Your task to perform on an android device: Open calendar and show me the third week of next month Image 0: 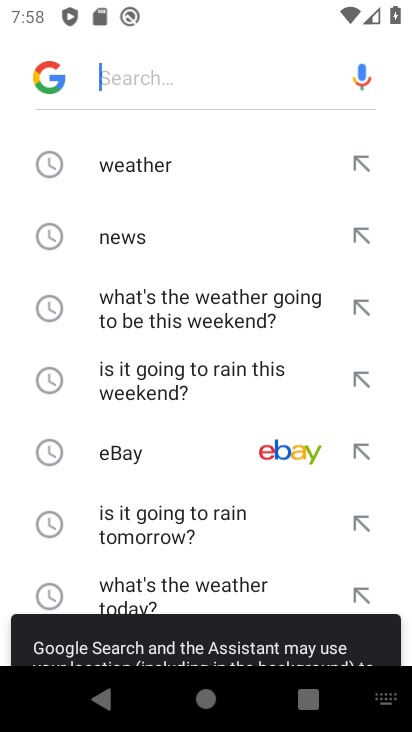
Step 0: press home button
Your task to perform on an android device: Open calendar and show me the third week of next month Image 1: 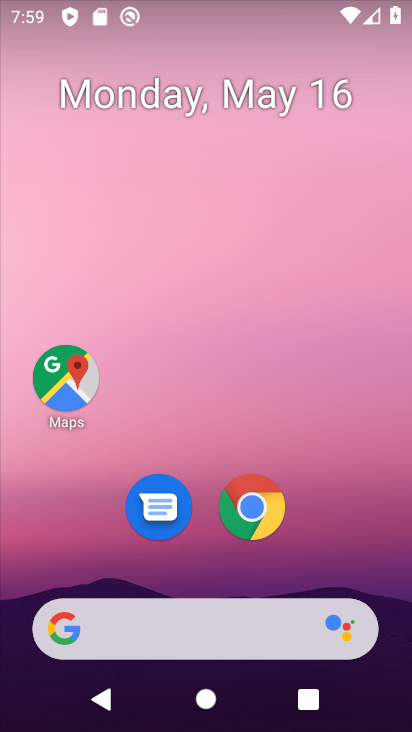
Step 1: drag from (344, 528) to (336, 123)
Your task to perform on an android device: Open calendar and show me the third week of next month Image 2: 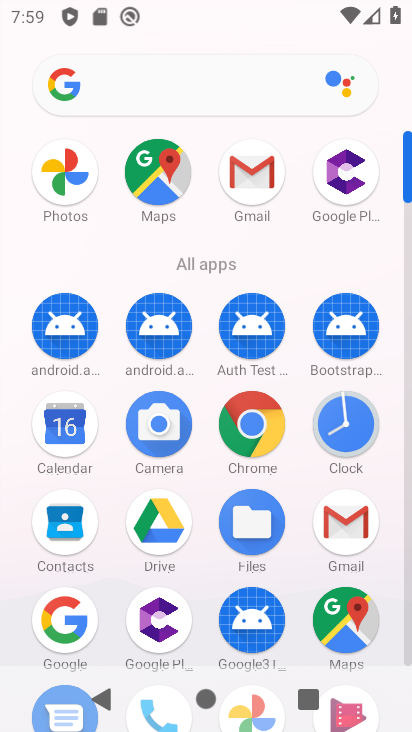
Step 2: click (59, 436)
Your task to perform on an android device: Open calendar and show me the third week of next month Image 3: 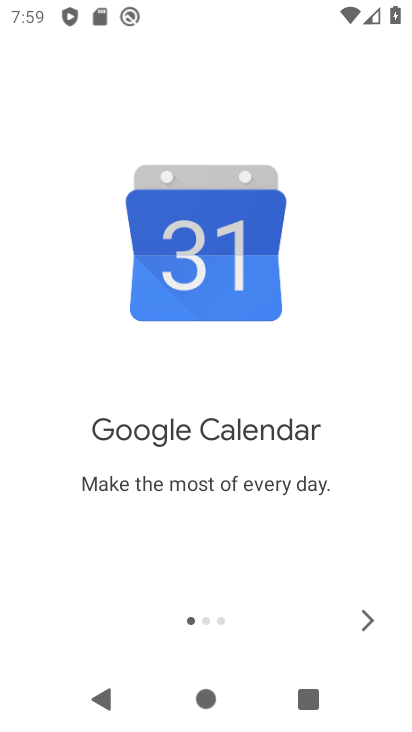
Step 3: click (361, 616)
Your task to perform on an android device: Open calendar and show me the third week of next month Image 4: 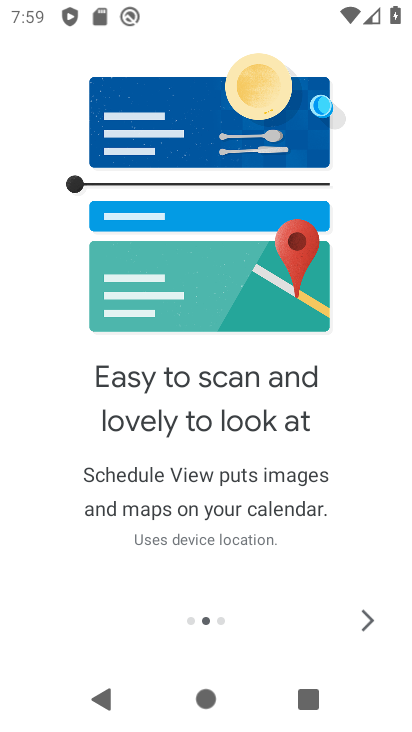
Step 4: click (361, 616)
Your task to perform on an android device: Open calendar and show me the third week of next month Image 5: 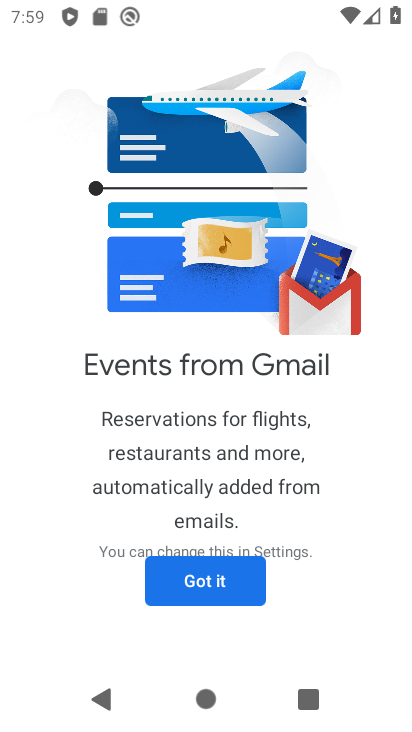
Step 5: click (208, 573)
Your task to perform on an android device: Open calendar and show me the third week of next month Image 6: 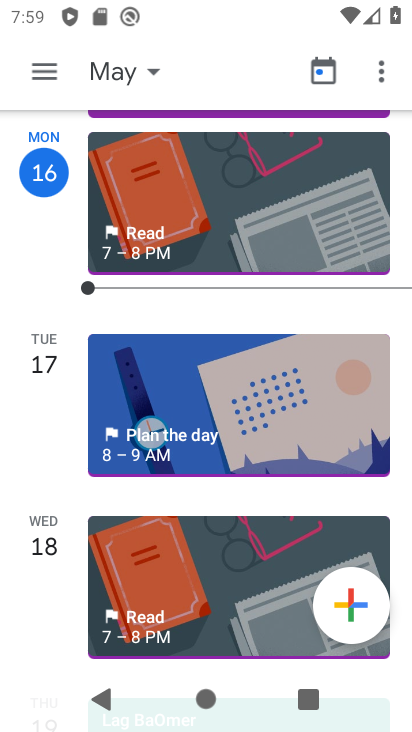
Step 6: click (131, 74)
Your task to perform on an android device: Open calendar and show me the third week of next month Image 7: 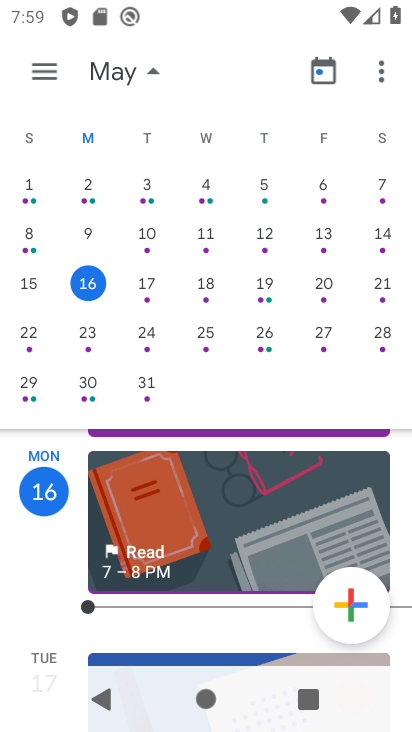
Step 7: drag from (404, 190) to (26, 194)
Your task to perform on an android device: Open calendar and show me the third week of next month Image 8: 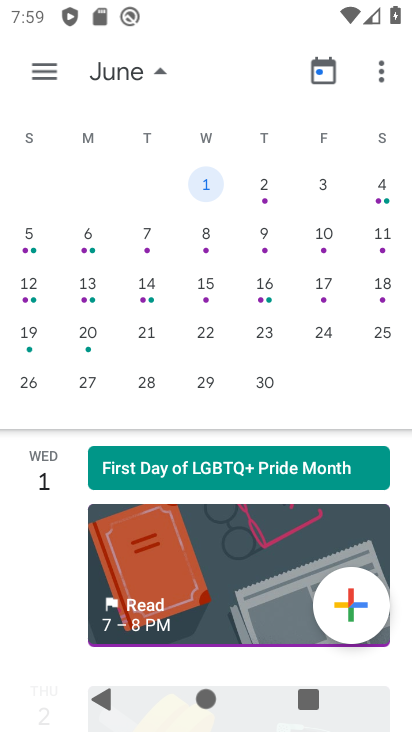
Step 8: click (271, 282)
Your task to perform on an android device: Open calendar and show me the third week of next month Image 9: 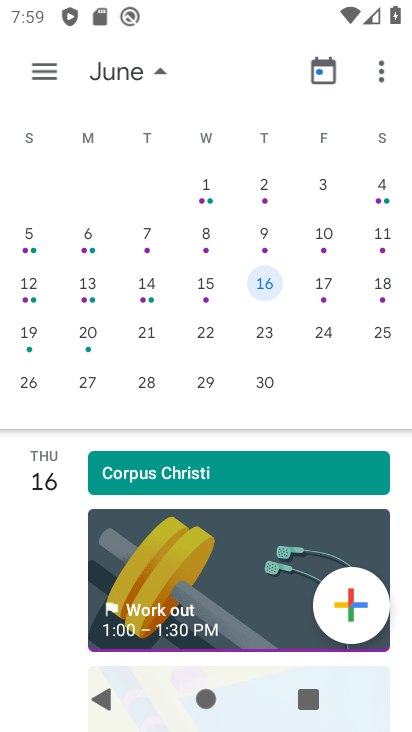
Step 9: task complete